Your task to perform on an android device: change alarm snooze length Image 0: 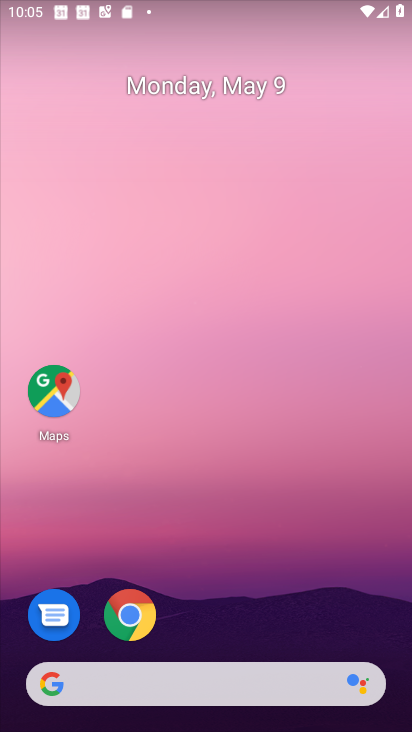
Step 0: drag from (276, 709) to (206, 214)
Your task to perform on an android device: change alarm snooze length Image 1: 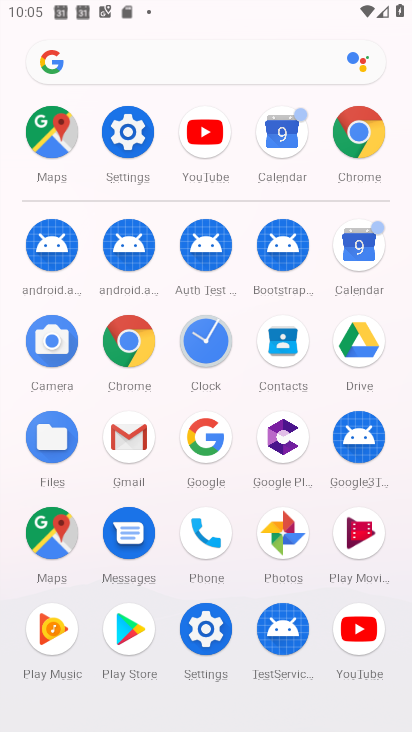
Step 1: click (206, 340)
Your task to perform on an android device: change alarm snooze length Image 2: 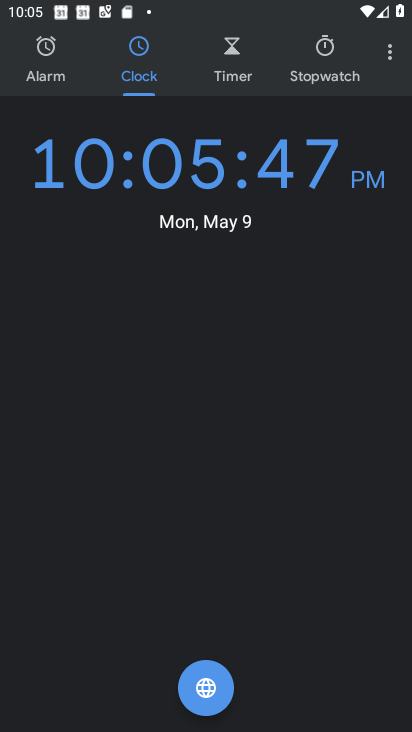
Step 2: click (374, 64)
Your task to perform on an android device: change alarm snooze length Image 3: 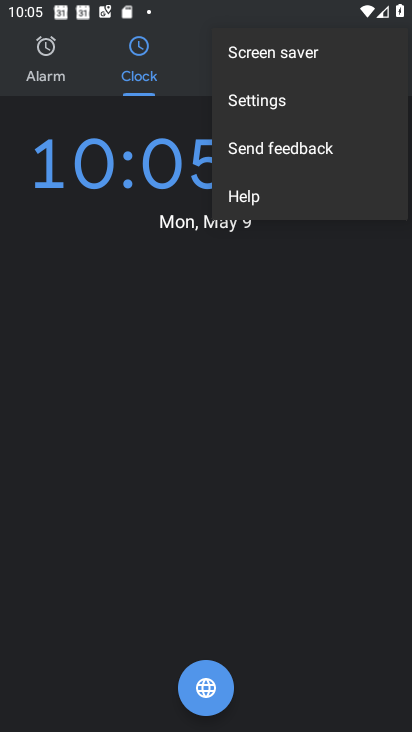
Step 3: click (295, 103)
Your task to perform on an android device: change alarm snooze length Image 4: 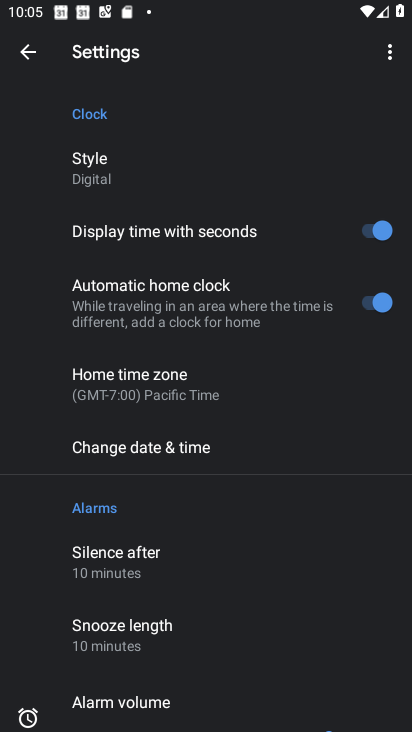
Step 4: click (150, 621)
Your task to perform on an android device: change alarm snooze length Image 5: 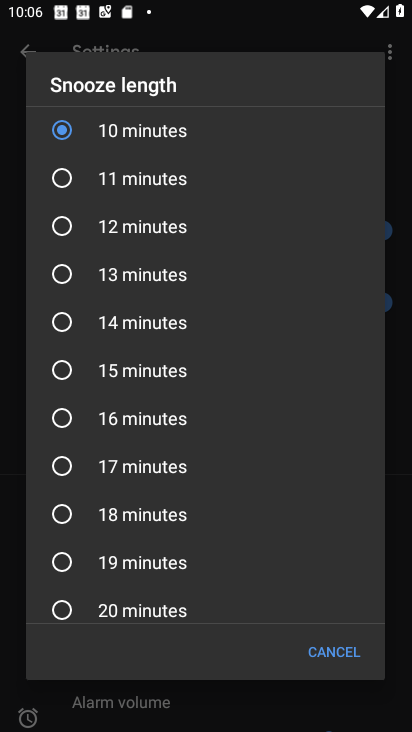
Step 5: click (142, 237)
Your task to perform on an android device: change alarm snooze length Image 6: 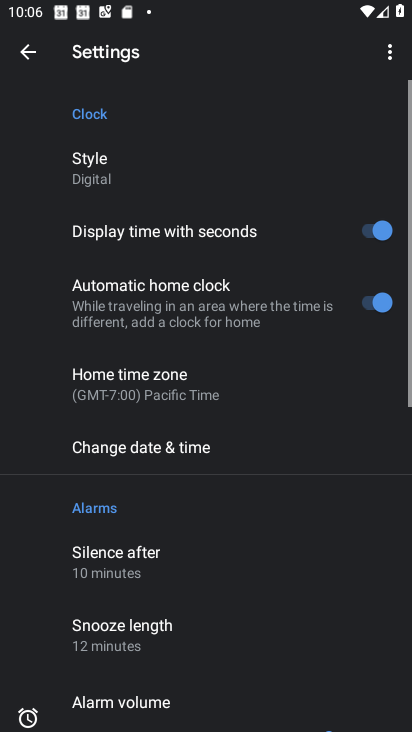
Step 6: task complete